Your task to perform on an android device: Open internet settings Image 0: 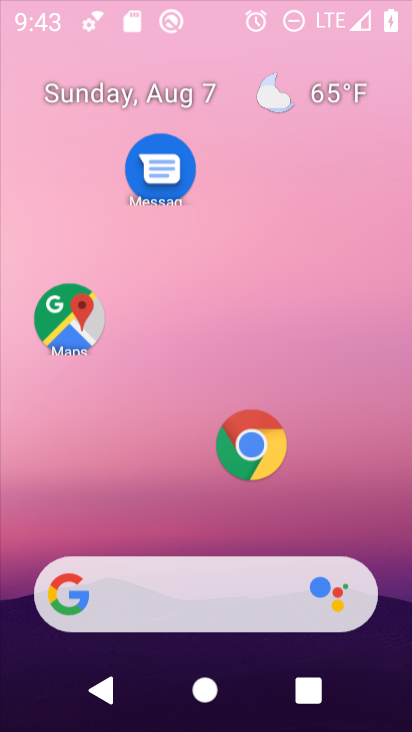
Step 0: press home button
Your task to perform on an android device: Open internet settings Image 1: 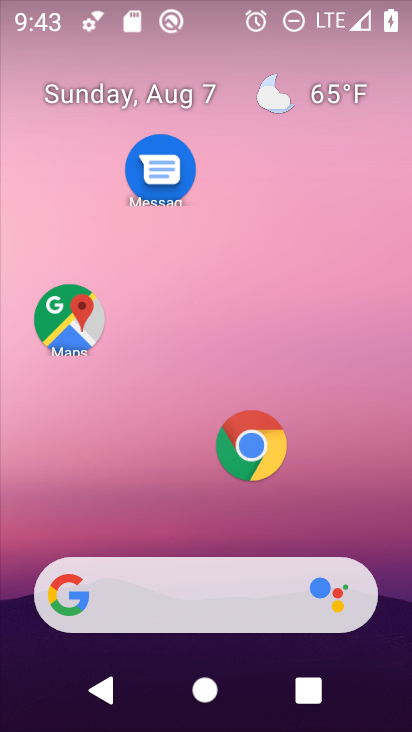
Step 1: drag from (319, 531) to (309, 50)
Your task to perform on an android device: Open internet settings Image 2: 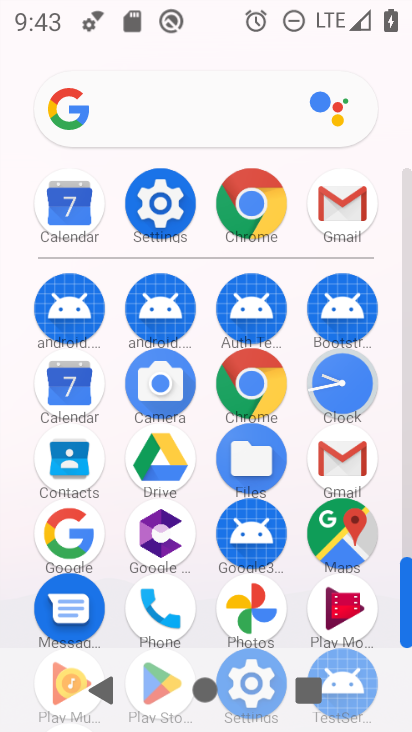
Step 2: click (157, 195)
Your task to perform on an android device: Open internet settings Image 3: 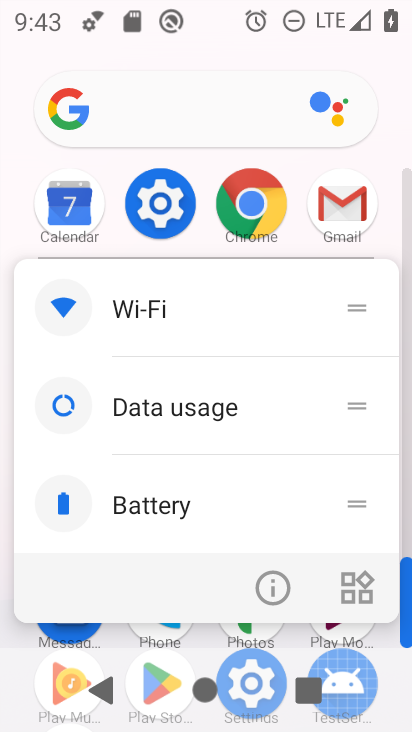
Step 3: click (157, 195)
Your task to perform on an android device: Open internet settings Image 4: 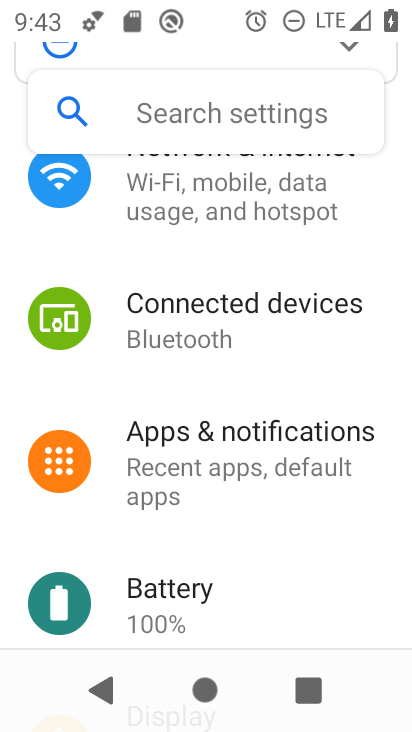
Step 4: drag from (101, 181) to (108, 415)
Your task to perform on an android device: Open internet settings Image 5: 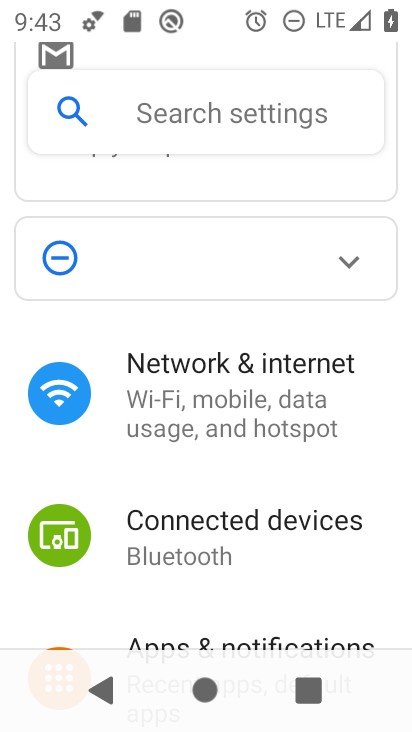
Step 5: click (108, 386)
Your task to perform on an android device: Open internet settings Image 6: 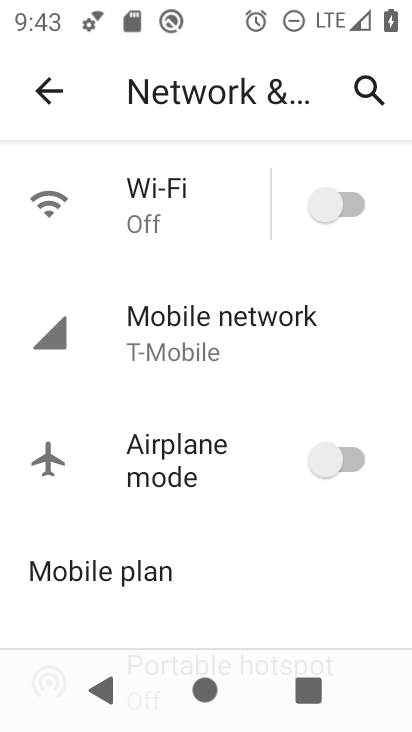
Step 6: drag from (218, 588) to (261, 183)
Your task to perform on an android device: Open internet settings Image 7: 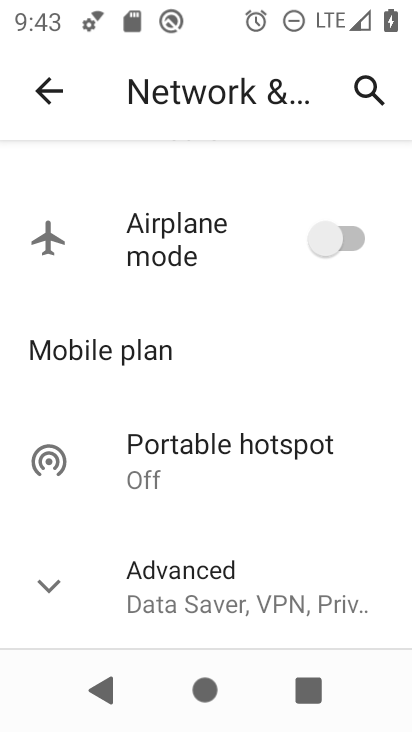
Step 7: click (49, 575)
Your task to perform on an android device: Open internet settings Image 8: 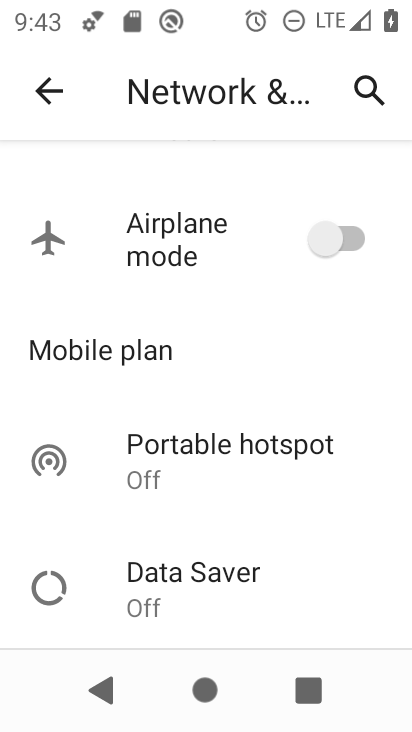
Step 8: task complete